Your task to perform on an android device: toggle location history Image 0: 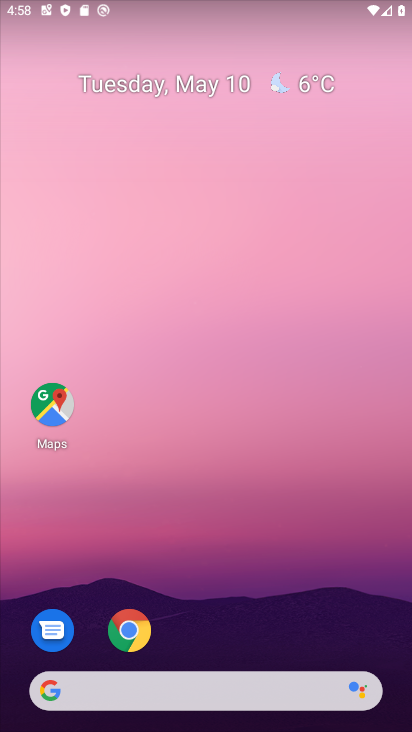
Step 0: drag from (314, 576) to (229, 208)
Your task to perform on an android device: toggle location history Image 1: 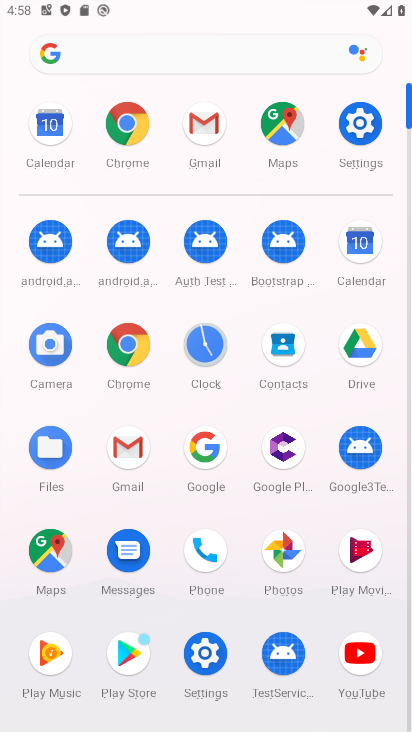
Step 1: click (365, 124)
Your task to perform on an android device: toggle location history Image 2: 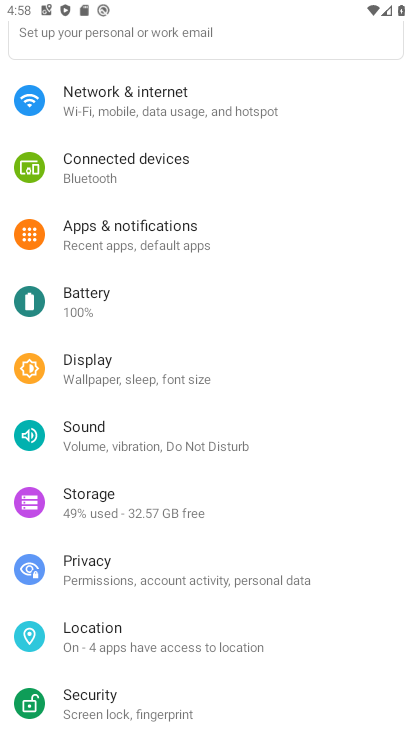
Step 2: drag from (200, 639) to (246, 377)
Your task to perform on an android device: toggle location history Image 3: 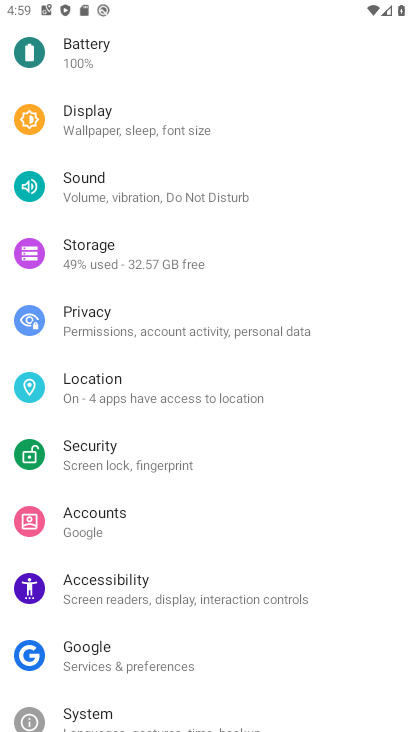
Step 3: click (118, 389)
Your task to perform on an android device: toggle location history Image 4: 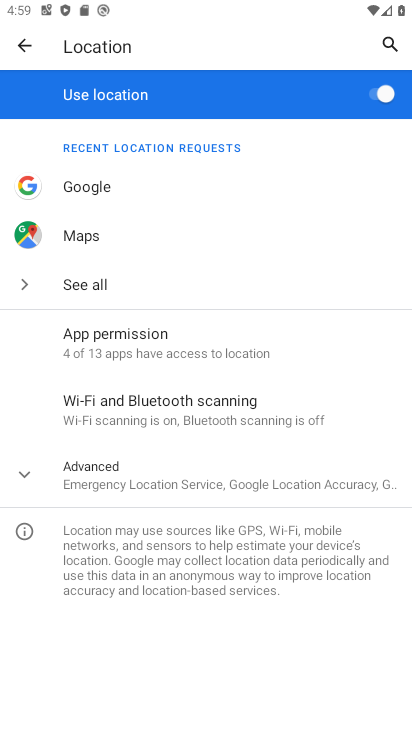
Step 4: click (141, 480)
Your task to perform on an android device: toggle location history Image 5: 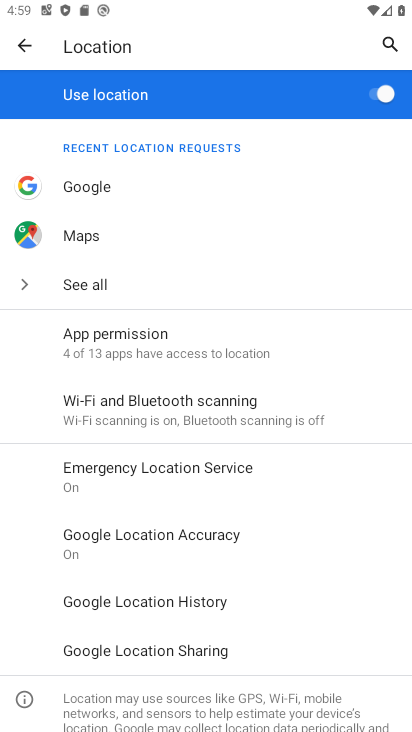
Step 5: click (187, 602)
Your task to perform on an android device: toggle location history Image 6: 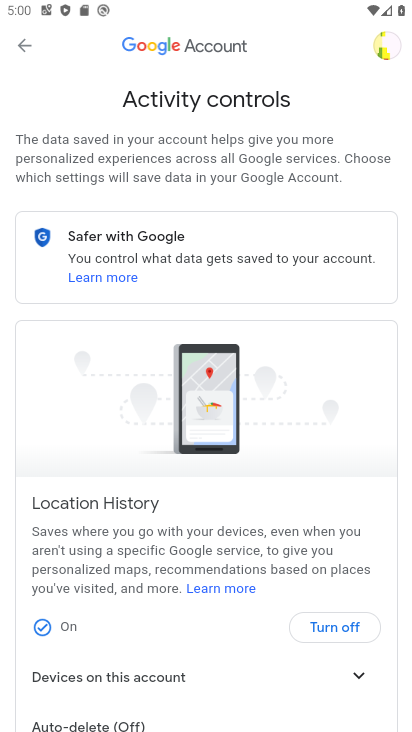
Step 6: drag from (218, 608) to (190, 144)
Your task to perform on an android device: toggle location history Image 7: 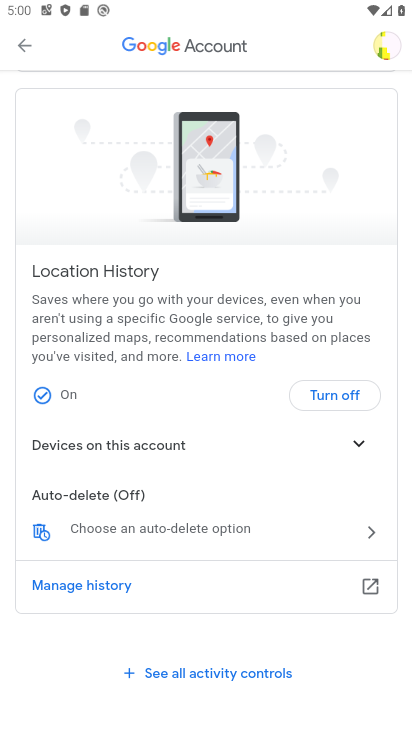
Step 7: drag from (201, 436) to (219, 59)
Your task to perform on an android device: toggle location history Image 8: 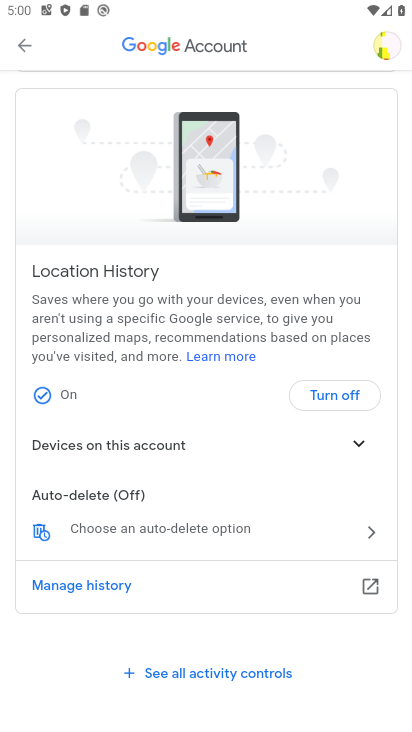
Step 8: click (356, 387)
Your task to perform on an android device: toggle location history Image 9: 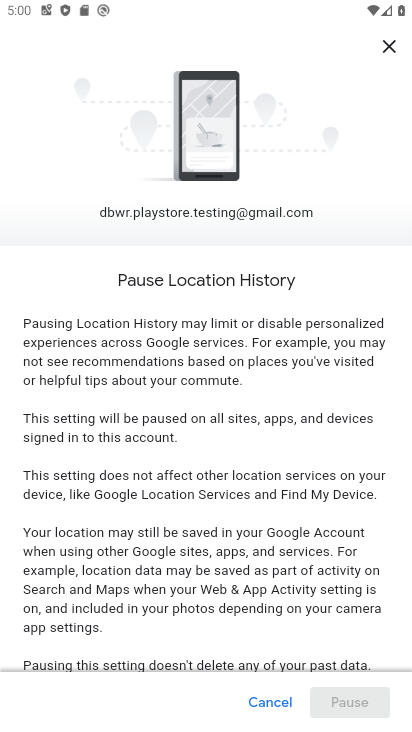
Step 9: drag from (330, 598) to (273, 20)
Your task to perform on an android device: toggle location history Image 10: 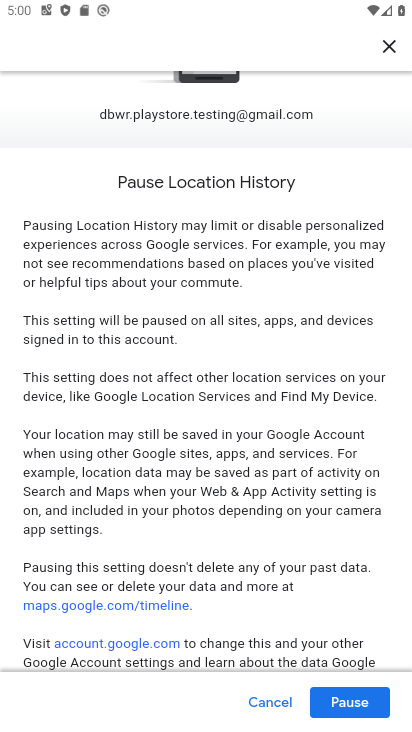
Step 10: click (366, 715)
Your task to perform on an android device: toggle location history Image 11: 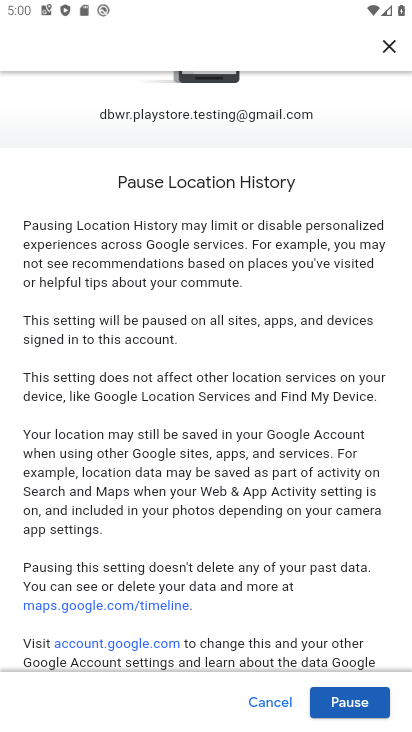
Step 11: click (381, 713)
Your task to perform on an android device: toggle location history Image 12: 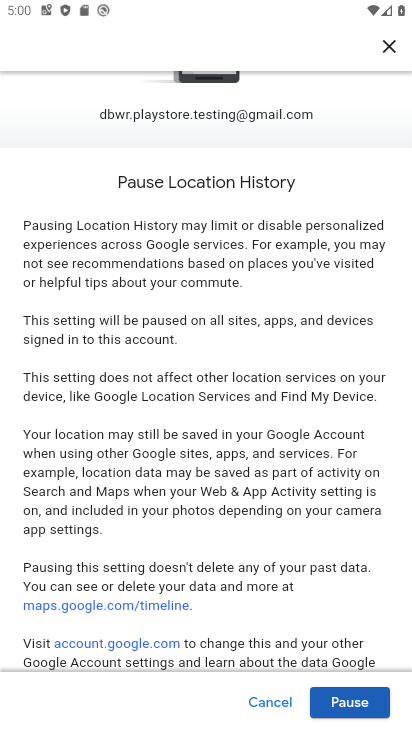
Step 12: click (372, 702)
Your task to perform on an android device: toggle location history Image 13: 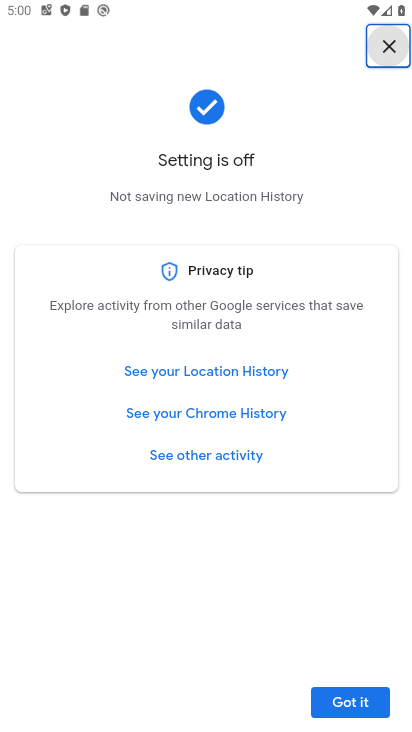
Step 13: task complete